Your task to perform on an android device: What is the news today? Image 0: 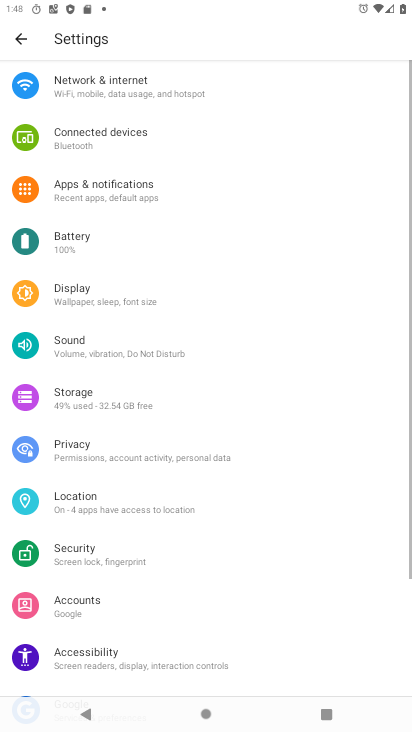
Step 0: press home button
Your task to perform on an android device: What is the news today? Image 1: 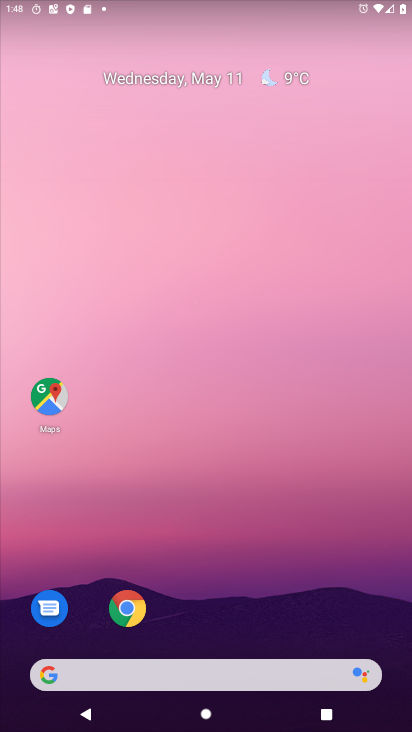
Step 1: drag from (227, 609) to (239, 118)
Your task to perform on an android device: What is the news today? Image 2: 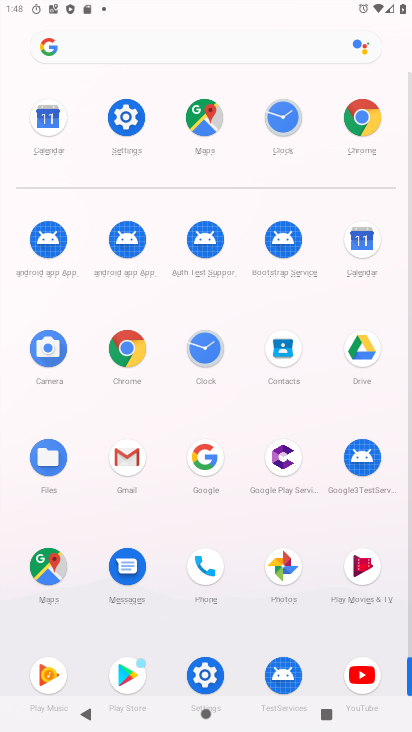
Step 2: click (208, 467)
Your task to perform on an android device: What is the news today? Image 3: 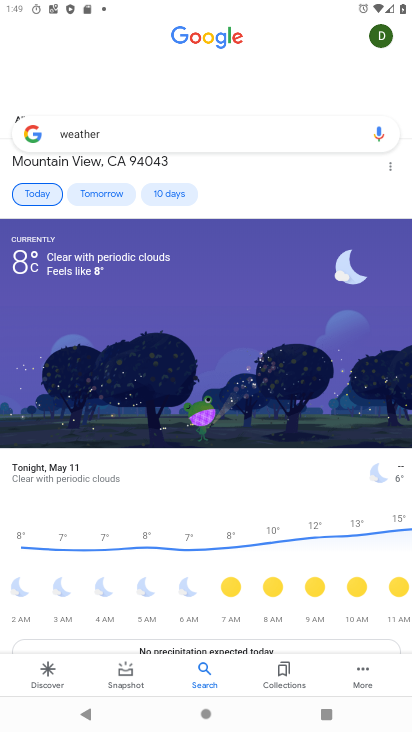
Step 3: click (191, 136)
Your task to perform on an android device: What is the news today? Image 4: 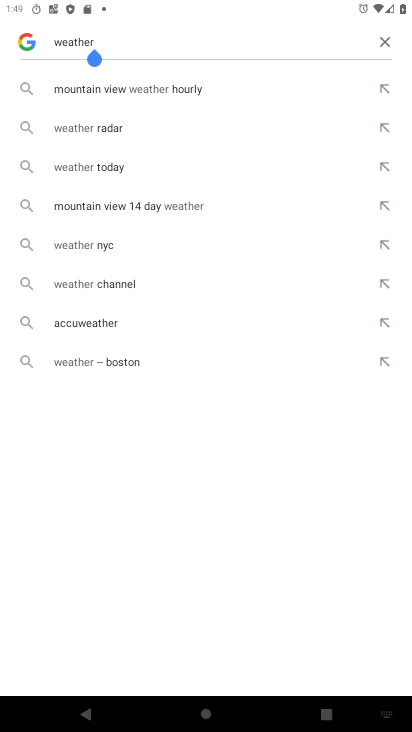
Step 4: click (387, 45)
Your task to perform on an android device: What is the news today? Image 5: 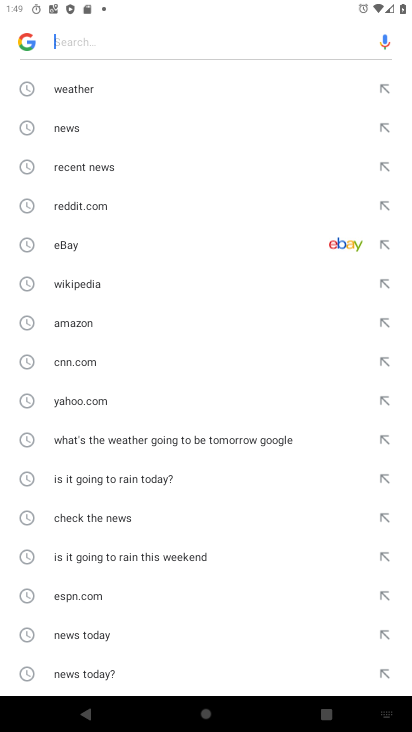
Step 5: type "news "
Your task to perform on an android device: What is the news today? Image 6: 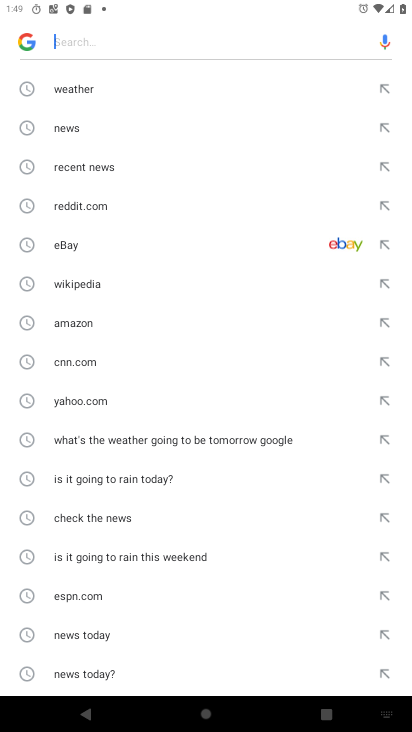
Step 6: click (113, 130)
Your task to perform on an android device: What is the news today? Image 7: 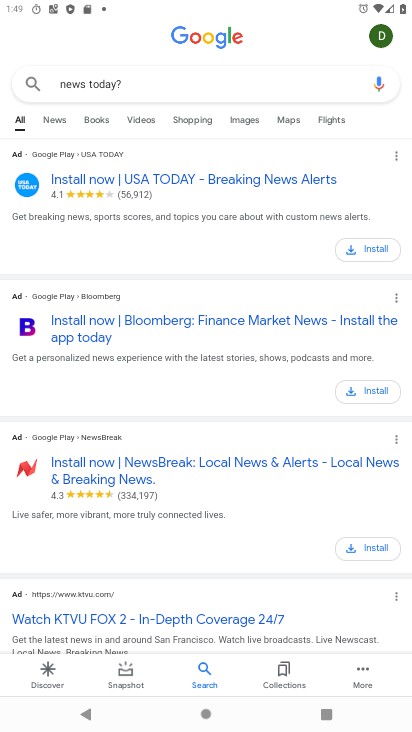
Step 7: task complete